Your task to perform on an android device: open chrome and create a bookmark for the current page Image 0: 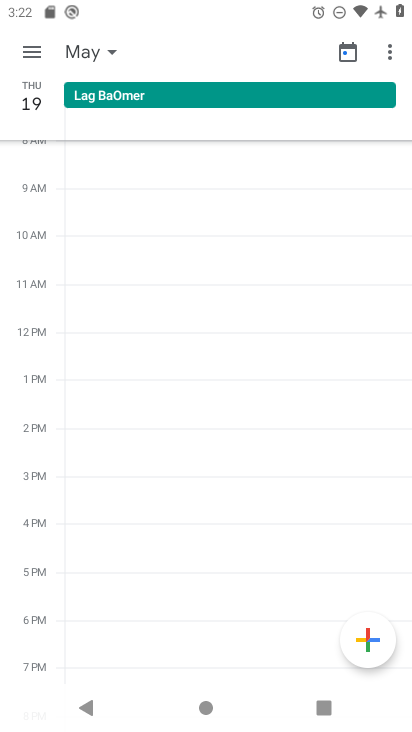
Step 0: press home button
Your task to perform on an android device: open chrome and create a bookmark for the current page Image 1: 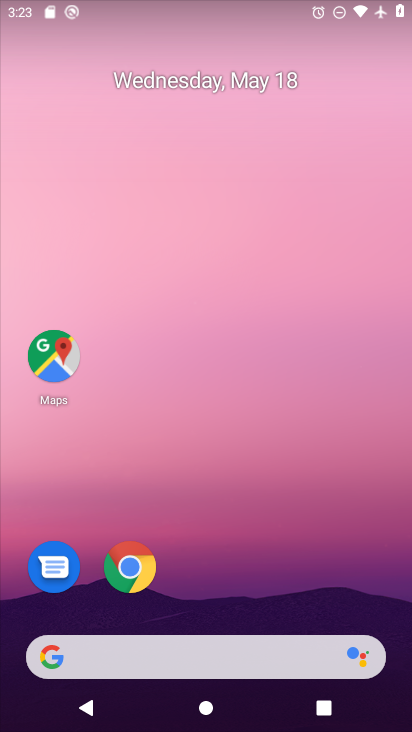
Step 1: click (124, 556)
Your task to perform on an android device: open chrome and create a bookmark for the current page Image 2: 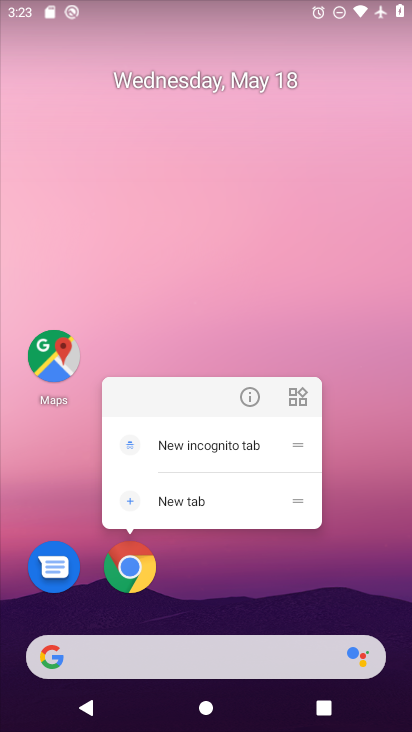
Step 2: click (139, 564)
Your task to perform on an android device: open chrome and create a bookmark for the current page Image 3: 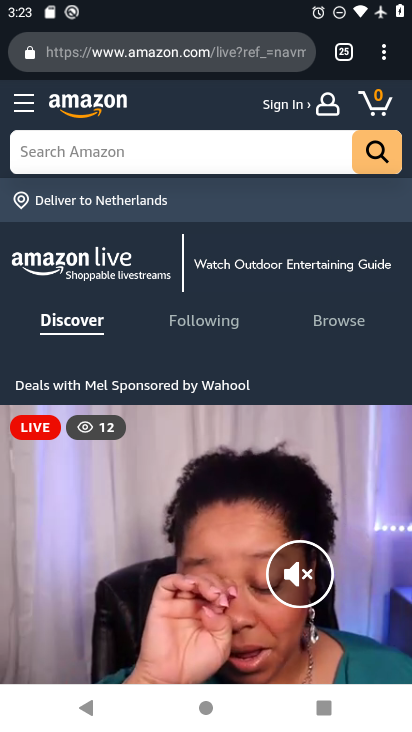
Step 3: click (391, 46)
Your task to perform on an android device: open chrome and create a bookmark for the current page Image 4: 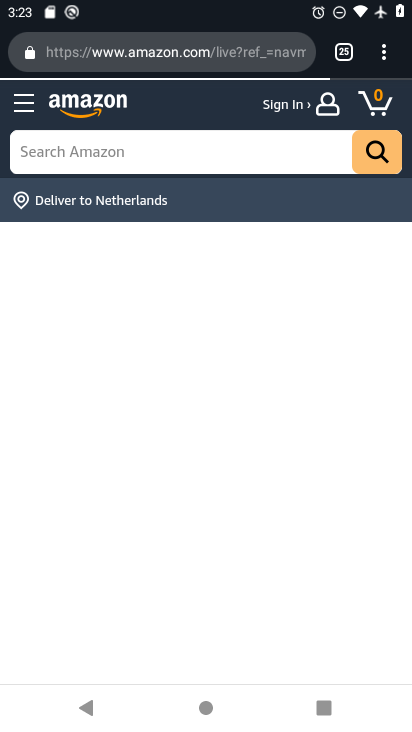
Step 4: click (381, 45)
Your task to perform on an android device: open chrome and create a bookmark for the current page Image 5: 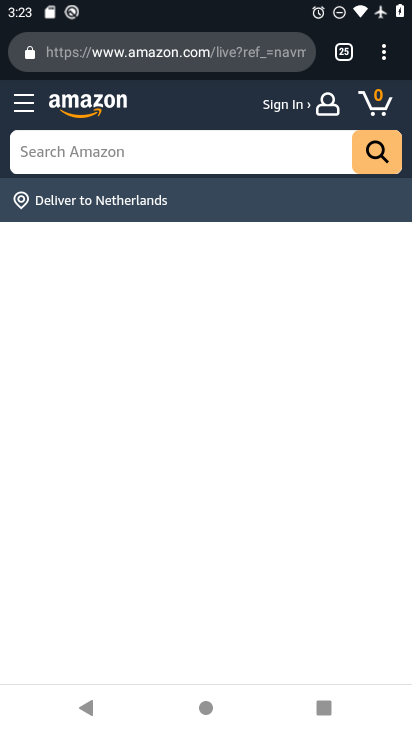
Step 5: click (386, 56)
Your task to perform on an android device: open chrome and create a bookmark for the current page Image 6: 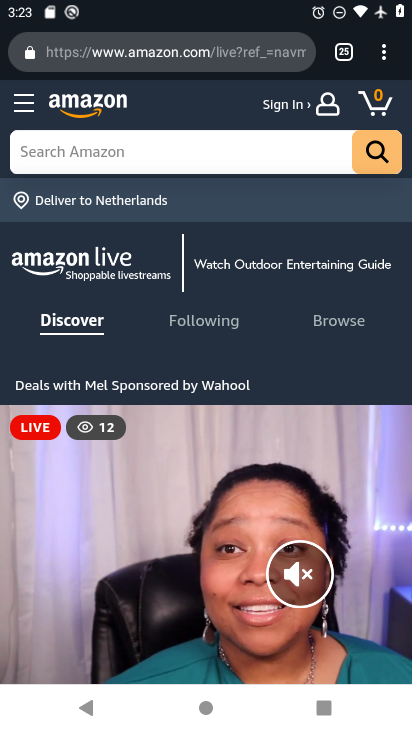
Step 6: click (371, 57)
Your task to perform on an android device: open chrome and create a bookmark for the current page Image 7: 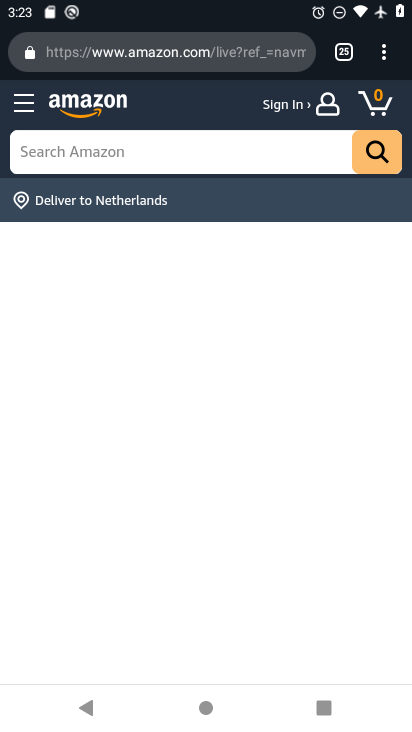
Step 7: click (380, 52)
Your task to perform on an android device: open chrome and create a bookmark for the current page Image 8: 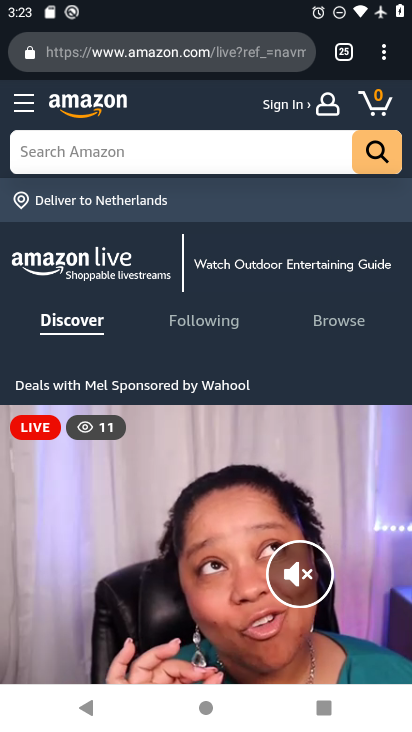
Step 8: click (381, 54)
Your task to perform on an android device: open chrome and create a bookmark for the current page Image 9: 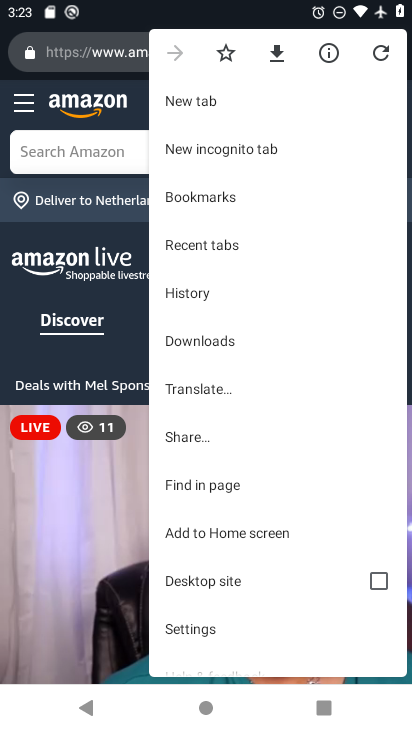
Step 9: click (222, 46)
Your task to perform on an android device: open chrome and create a bookmark for the current page Image 10: 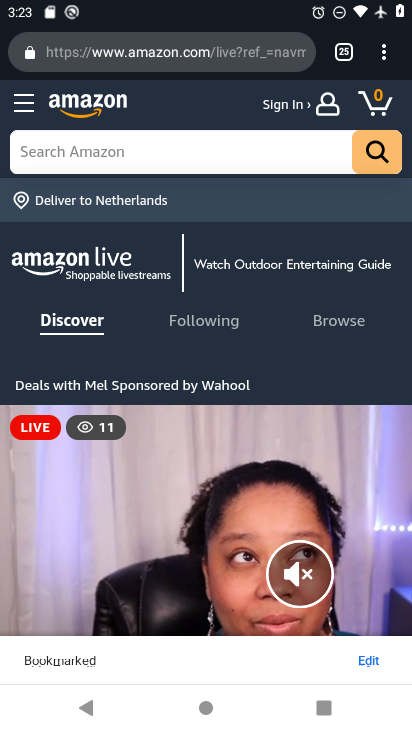
Step 10: task complete